Your task to perform on an android device: Toggle the flashlight Image 0: 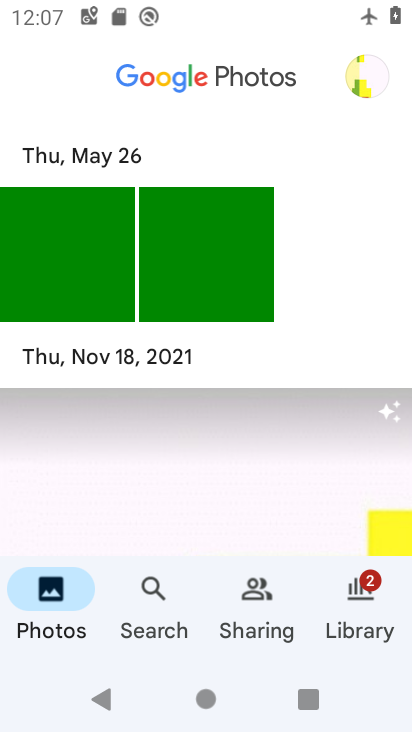
Step 0: drag from (245, 654) to (241, 16)
Your task to perform on an android device: Toggle the flashlight Image 1: 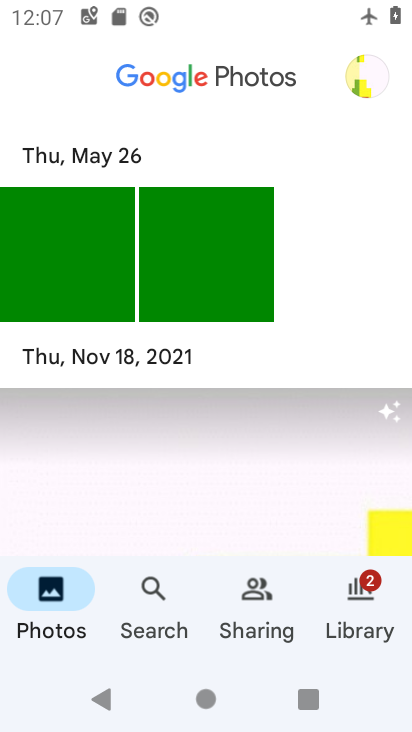
Step 1: task complete